Your task to perform on an android device: Open Android settings Image 0: 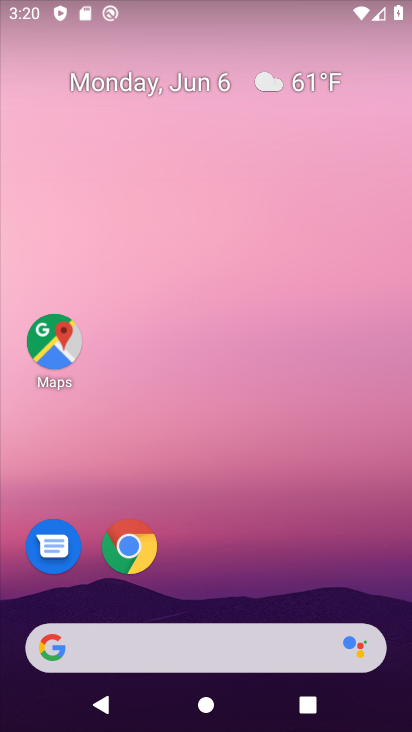
Step 0: drag from (273, 575) to (259, 146)
Your task to perform on an android device: Open Android settings Image 1: 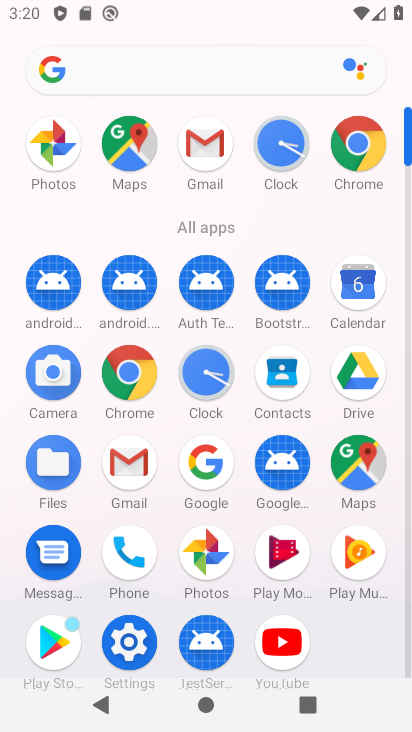
Step 1: drag from (343, 631) to (345, 284)
Your task to perform on an android device: Open Android settings Image 2: 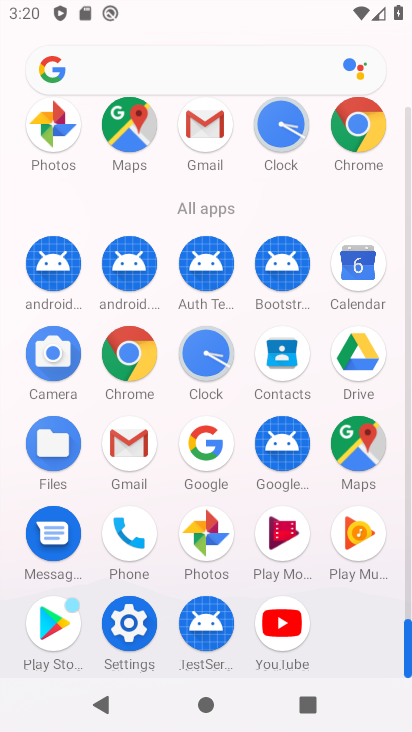
Step 2: click (120, 595)
Your task to perform on an android device: Open Android settings Image 3: 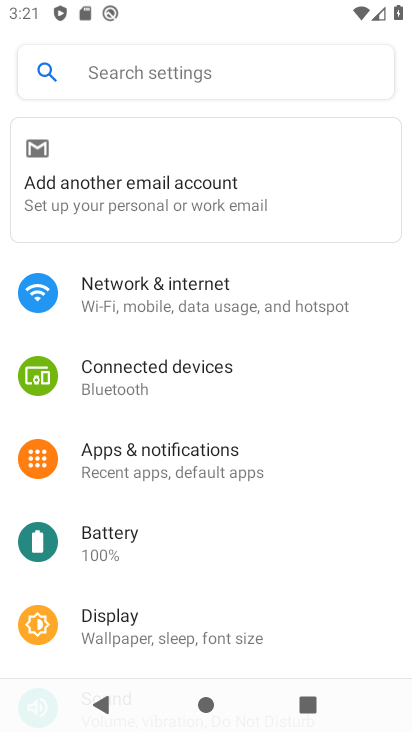
Step 3: press home button
Your task to perform on an android device: Open Android settings Image 4: 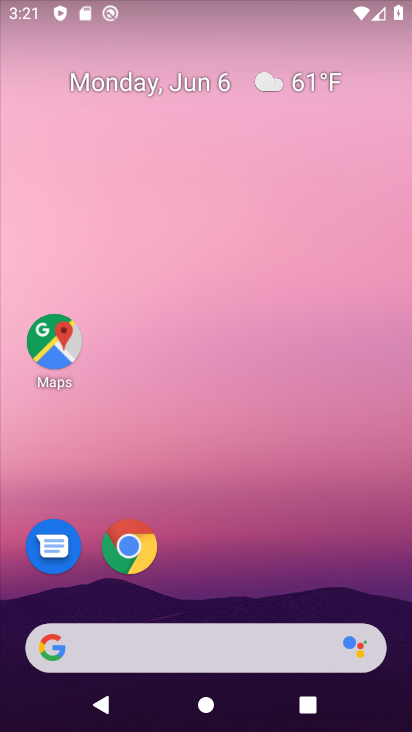
Step 4: drag from (209, 617) to (212, 77)
Your task to perform on an android device: Open Android settings Image 5: 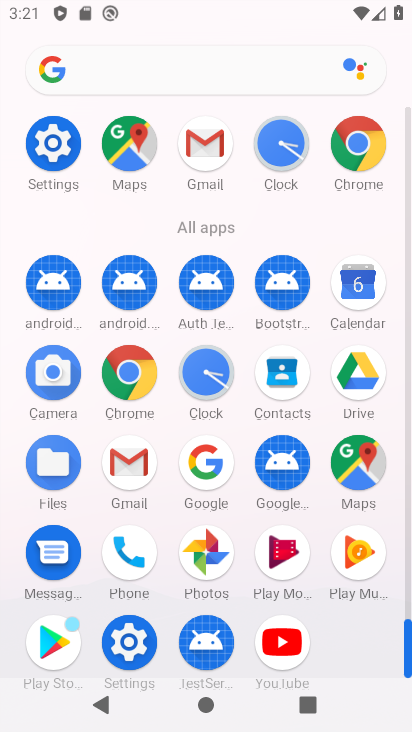
Step 5: click (42, 161)
Your task to perform on an android device: Open Android settings Image 6: 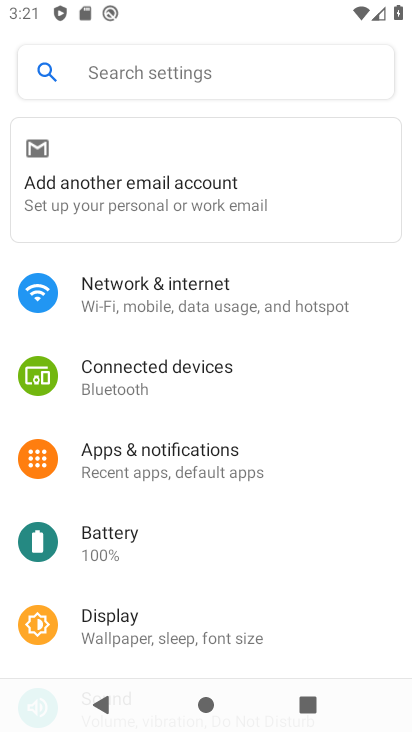
Step 6: task complete